Your task to perform on an android device: Toggle the flashlight Image 0: 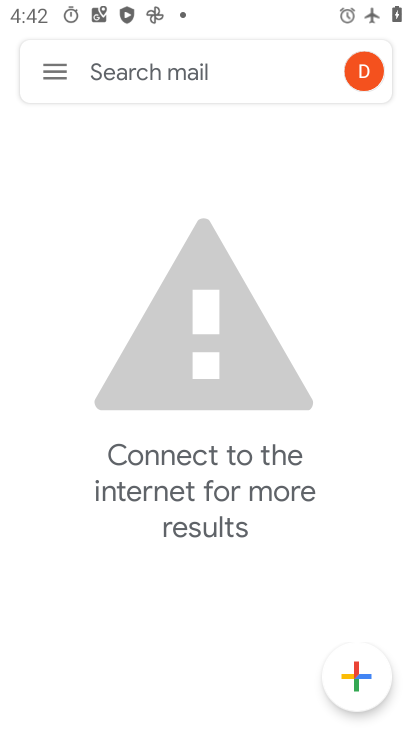
Step 0: press home button
Your task to perform on an android device: Toggle the flashlight Image 1: 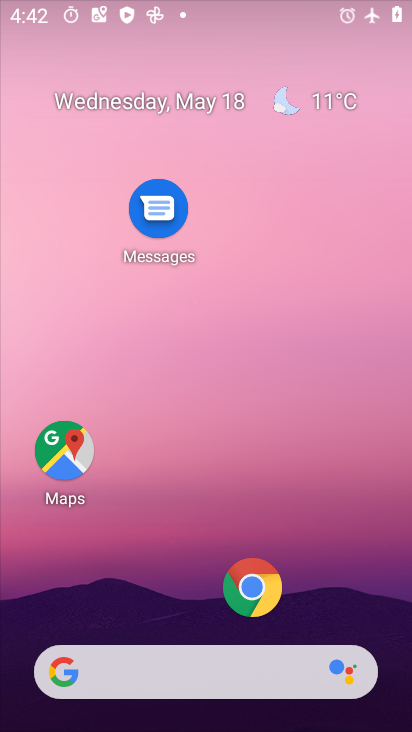
Step 1: drag from (251, 644) to (211, 276)
Your task to perform on an android device: Toggle the flashlight Image 2: 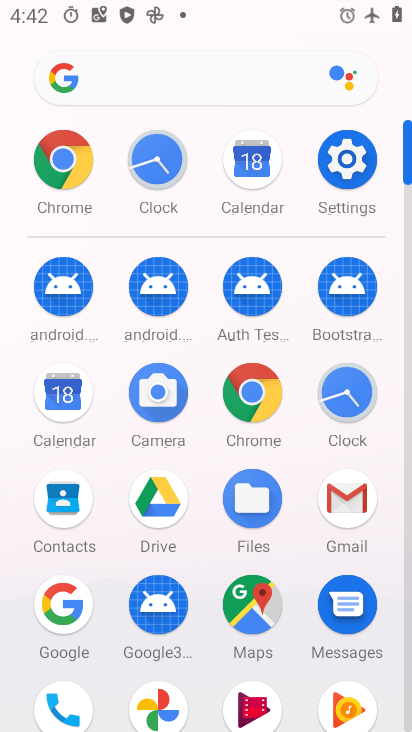
Step 2: drag from (296, 210) to (273, 518)
Your task to perform on an android device: Toggle the flashlight Image 3: 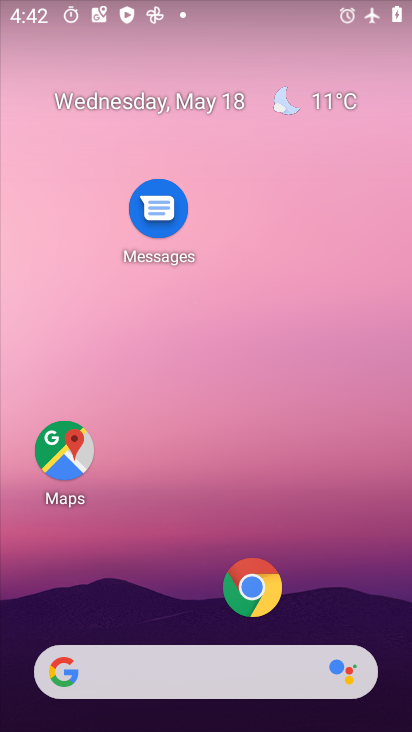
Step 3: drag from (298, 679) to (336, 179)
Your task to perform on an android device: Toggle the flashlight Image 4: 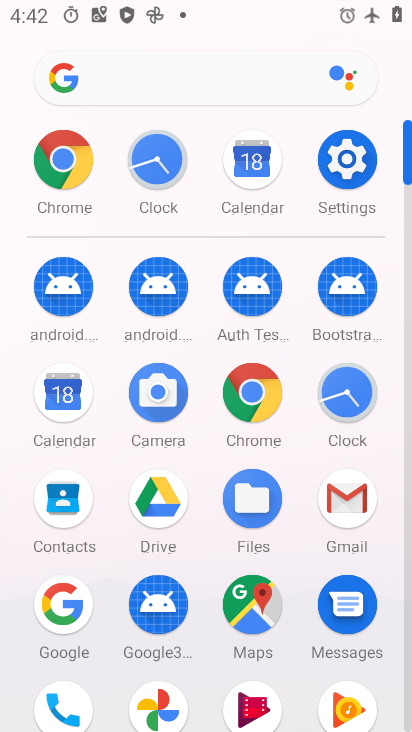
Step 4: click (314, 13)
Your task to perform on an android device: Toggle the flashlight Image 5: 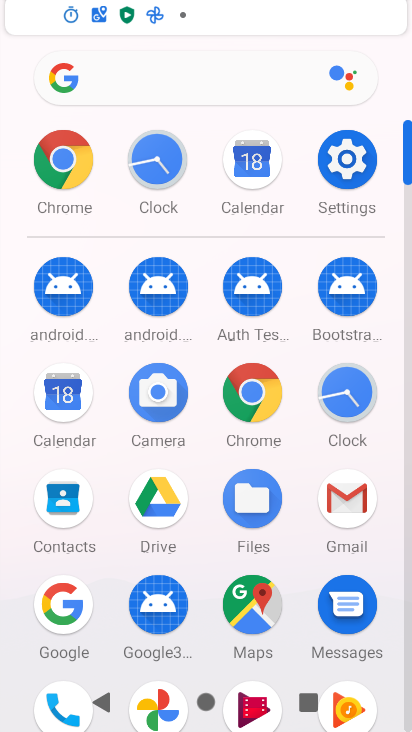
Step 5: task complete